Your task to perform on an android device: What's the weather today? Image 0: 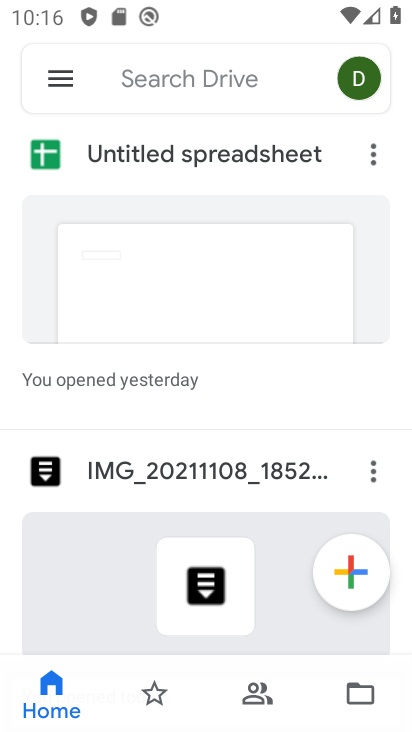
Step 0: press home button
Your task to perform on an android device: What's the weather today? Image 1: 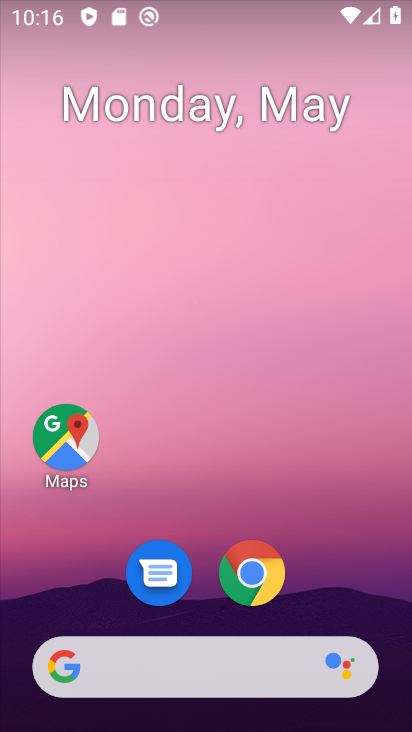
Step 1: drag from (16, 236) to (411, 271)
Your task to perform on an android device: What's the weather today? Image 2: 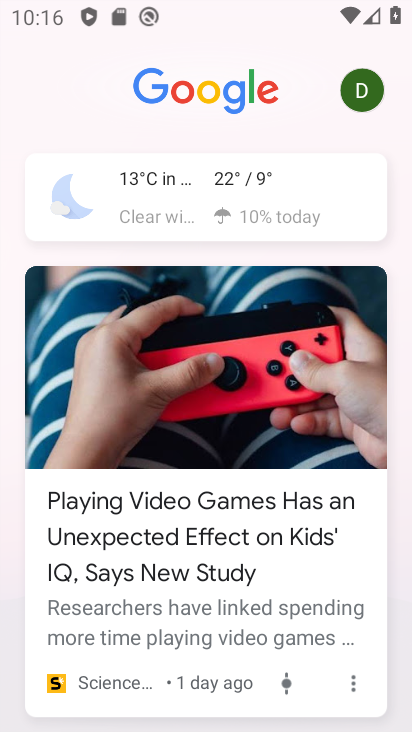
Step 2: click (319, 204)
Your task to perform on an android device: What's the weather today? Image 3: 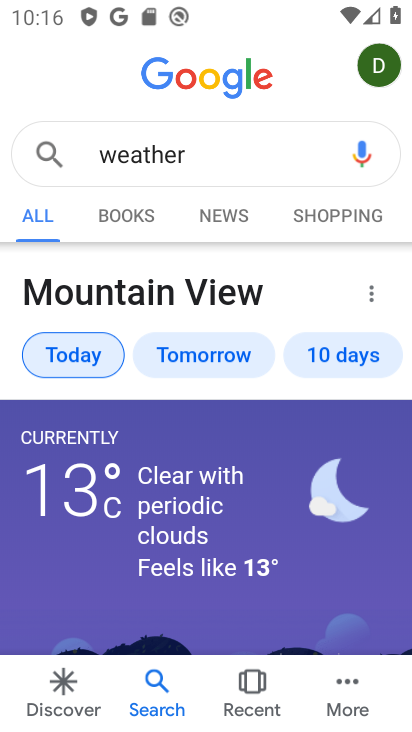
Step 3: task complete